Your task to perform on an android device: allow notifications from all sites in the chrome app Image 0: 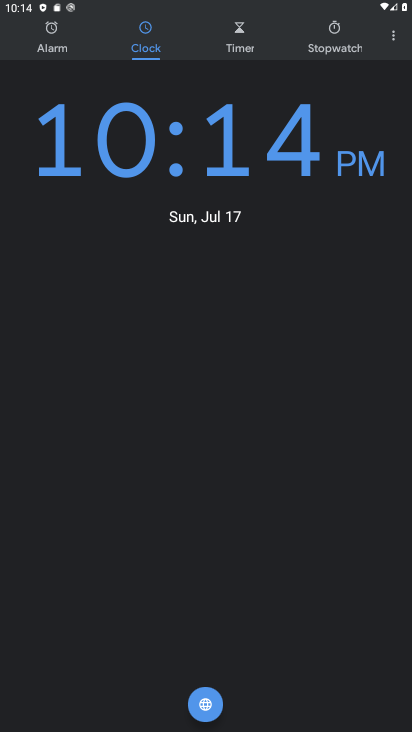
Step 0: press home button
Your task to perform on an android device: allow notifications from all sites in the chrome app Image 1: 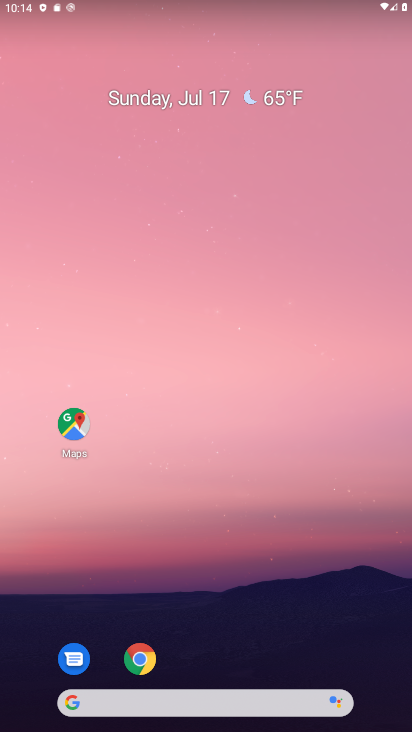
Step 1: drag from (204, 697) to (208, 189)
Your task to perform on an android device: allow notifications from all sites in the chrome app Image 2: 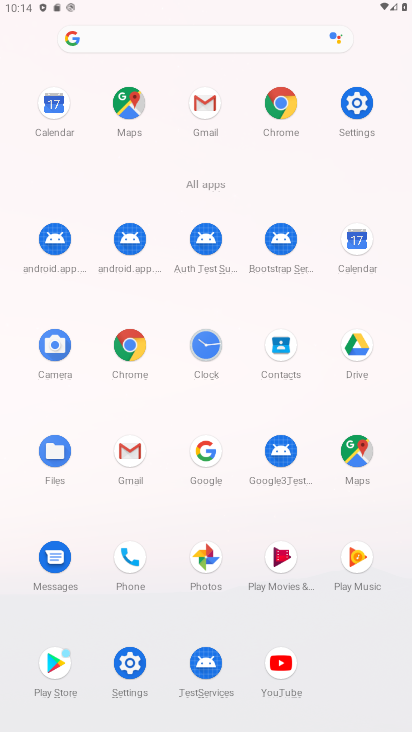
Step 2: click (130, 358)
Your task to perform on an android device: allow notifications from all sites in the chrome app Image 3: 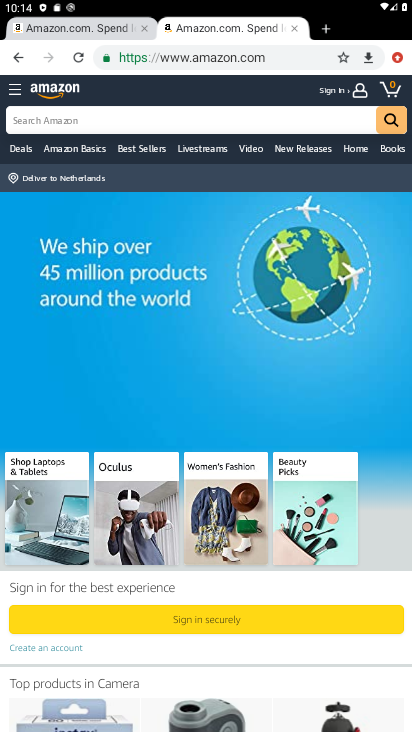
Step 3: click (397, 62)
Your task to perform on an android device: allow notifications from all sites in the chrome app Image 4: 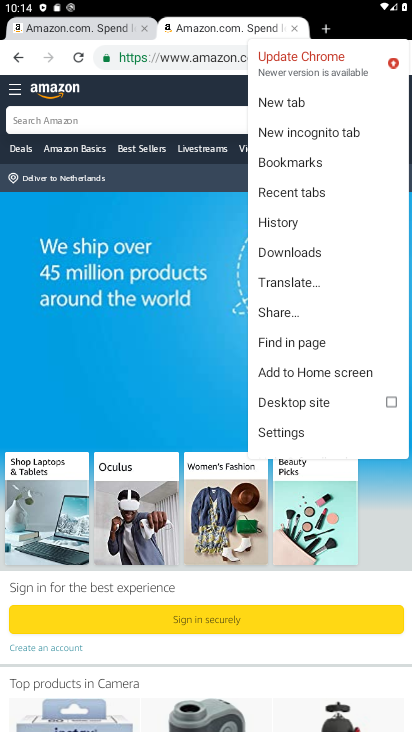
Step 4: click (277, 427)
Your task to perform on an android device: allow notifications from all sites in the chrome app Image 5: 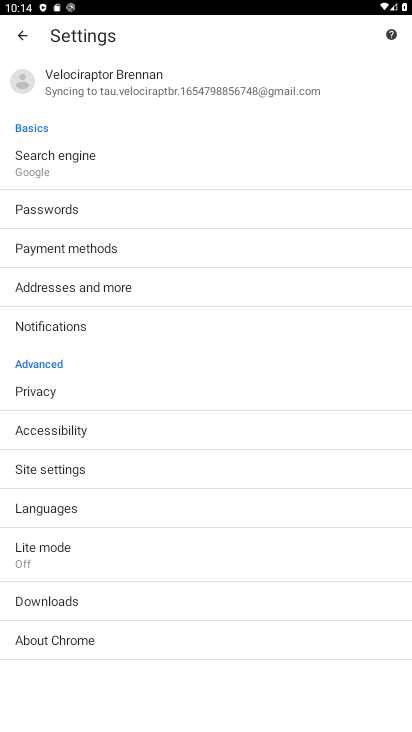
Step 5: click (94, 476)
Your task to perform on an android device: allow notifications from all sites in the chrome app Image 6: 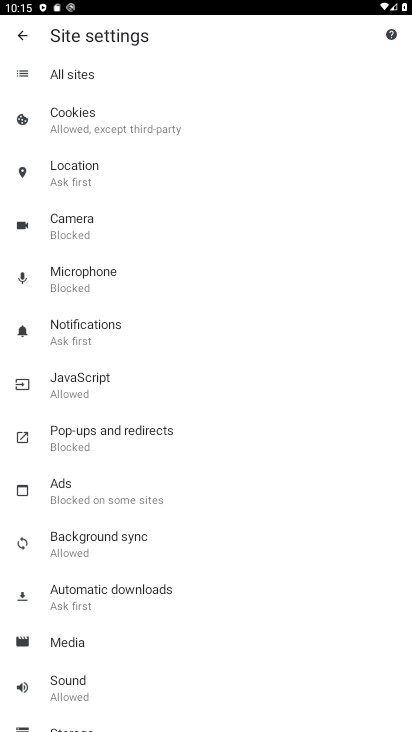
Step 6: click (99, 325)
Your task to perform on an android device: allow notifications from all sites in the chrome app Image 7: 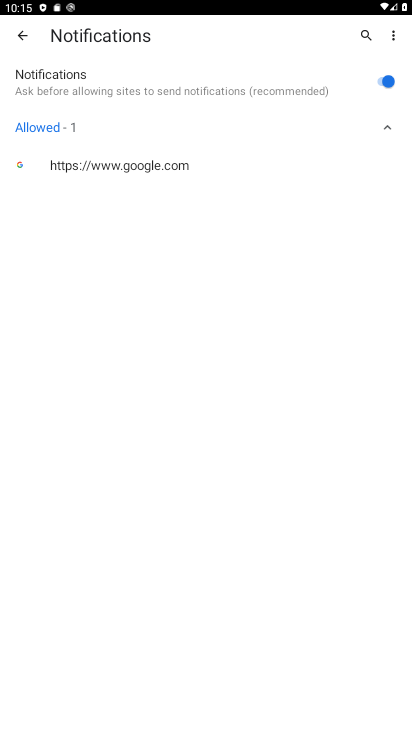
Step 7: task complete